Your task to perform on an android device: Go to location settings Image 0: 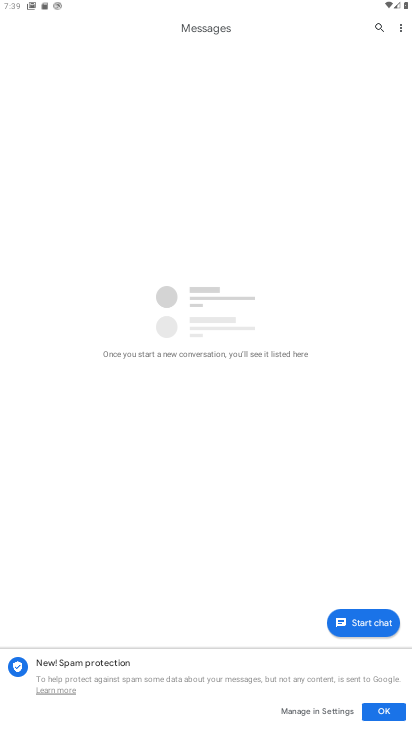
Step 0: press home button
Your task to perform on an android device: Go to location settings Image 1: 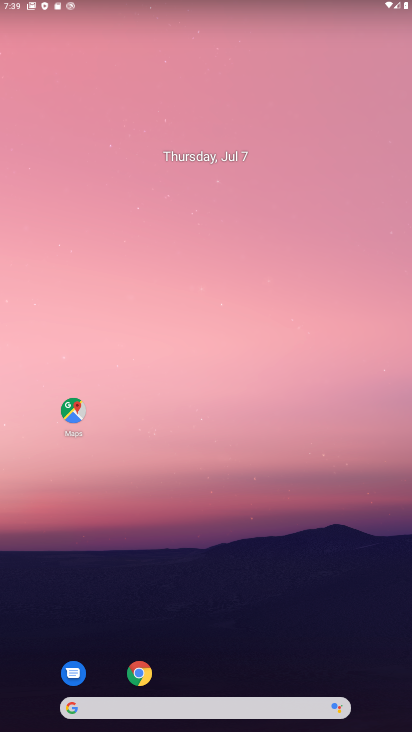
Step 1: drag from (194, 662) to (159, 45)
Your task to perform on an android device: Go to location settings Image 2: 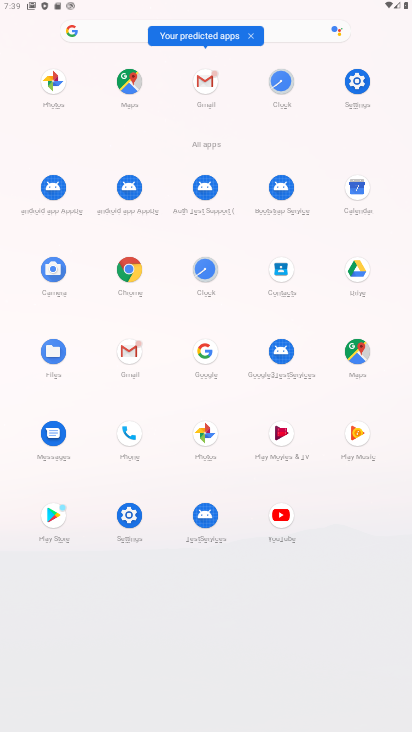
Step 2: click (355, 78)
Your task to perform on an android device: Go to location settings Image 3: 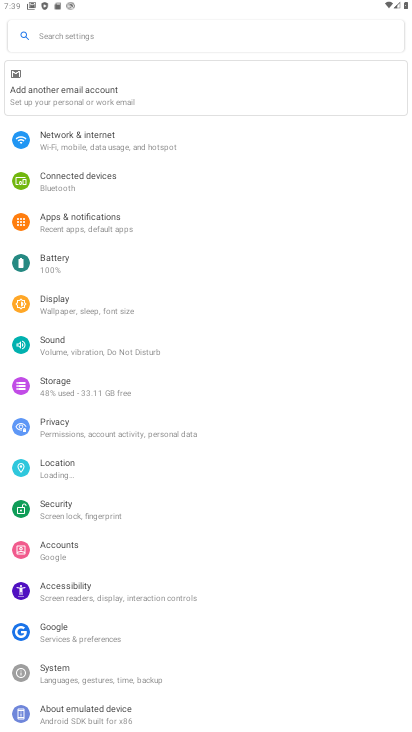
Step 3: click (43, 409)
Your task to perform on an android device: Go to location settings Image 4: 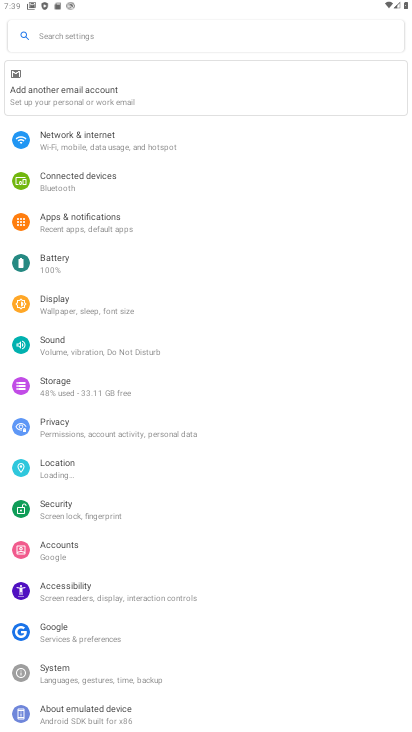
Step 4: click (46, 476)
Your task to perform on an android device: Go to location settings Image 5: 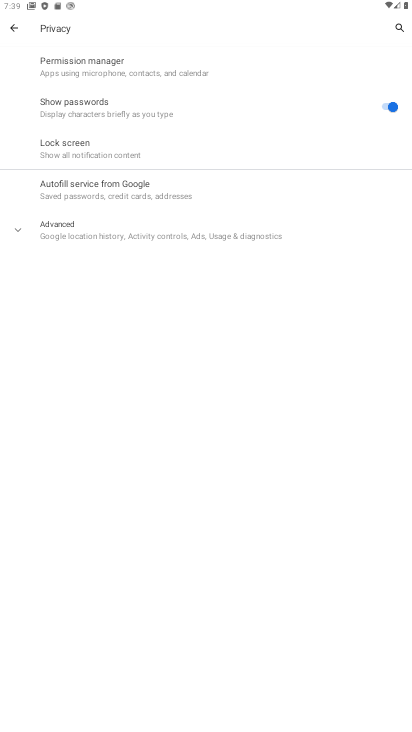
Step 5: click (10, 29)
Your task to perform on an android device: Go to location settings Image 6: 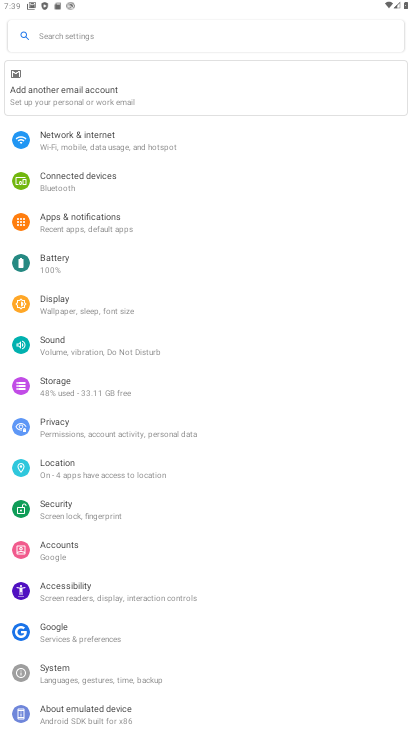
Step 6: click (76, 467)
Your task to perform on an android device: Go to location settings Image 7: 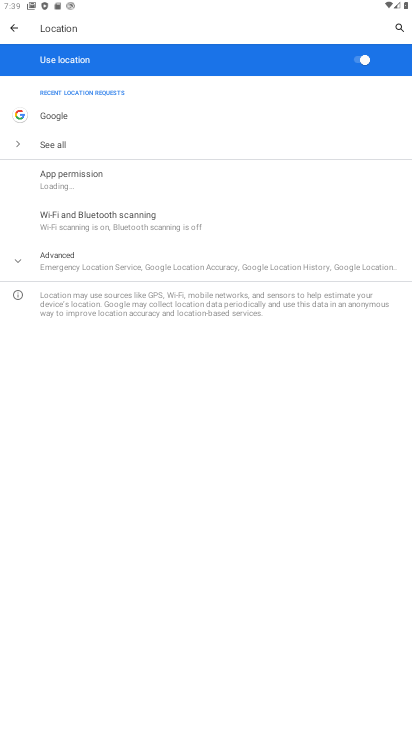
Step 7: drag from (211, 372) to (211, 533)
Your task to perform on an android device: Go to location settings Image 8: 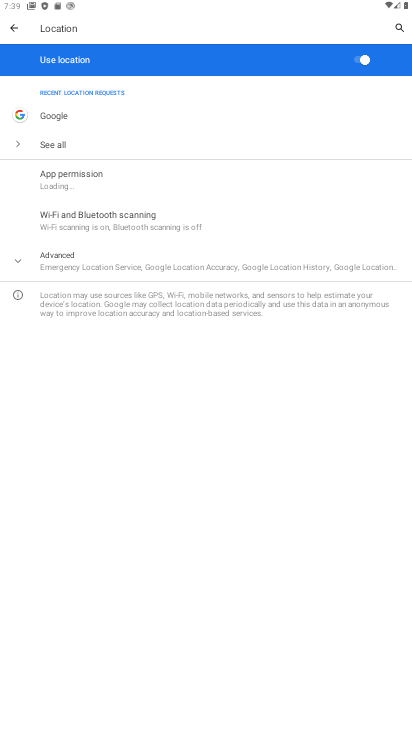
Step 8: click (140, 259)
Your task to perform on an android device: Go to location settings Image 9: 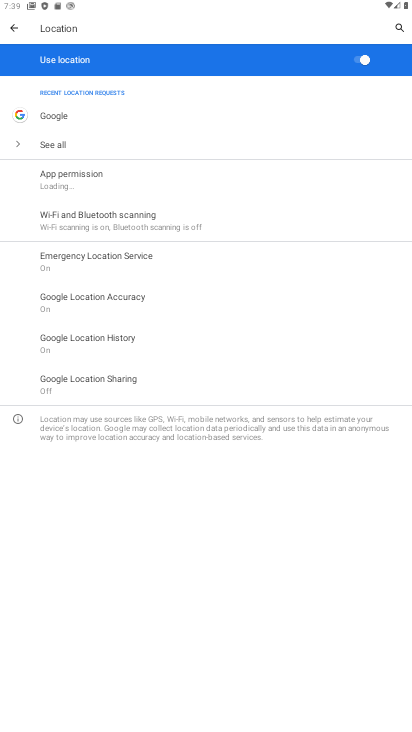
Step 9: task complete